Your task to perform on an android device: Do I have any events today? Image 0: 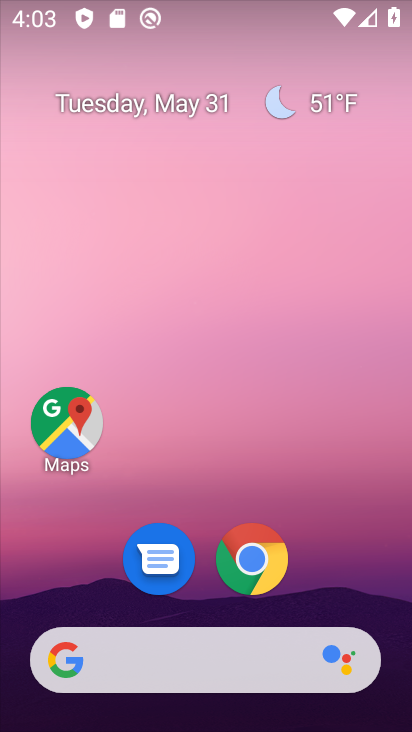
Step 0: drag from (331, 585) to (272, 44)
Your task to perform on an android device: Do I have any events today? Image 1: 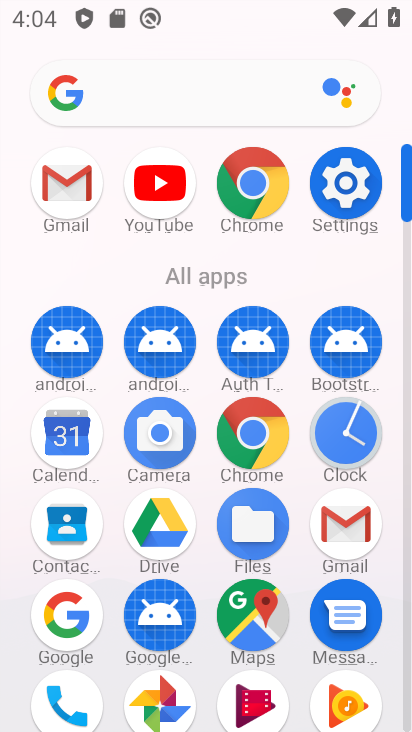
Step 1: click (56, 436)
Your task to perform on an android device: Do I have any events today? Image 2: 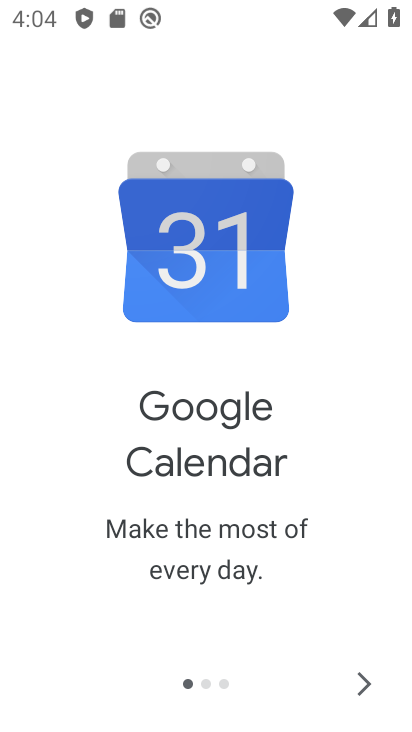
Step 2: click (354, 678)
Your task to perform on an android device: Do I have any events today? Image 3: 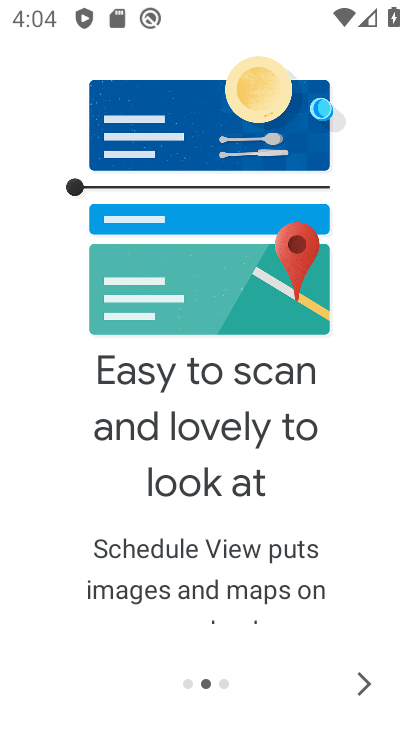
Step 3: click (355, 677)
Your task to perform on an android device: Do I have any events today? Image 4: 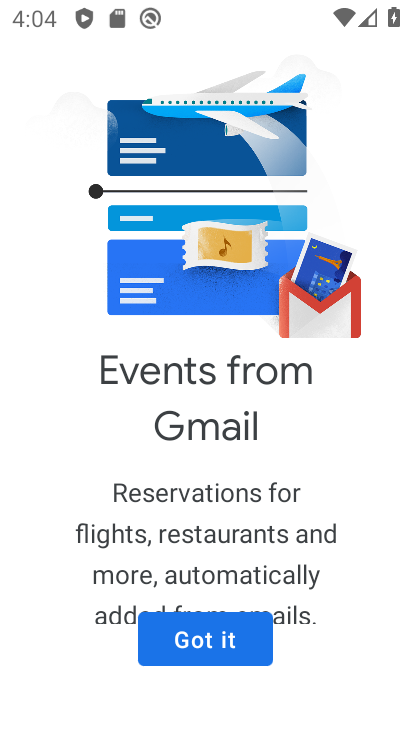
Step 4: click (185, 638)
Your task to perform on an android device: Do I have any events today? Image 5: 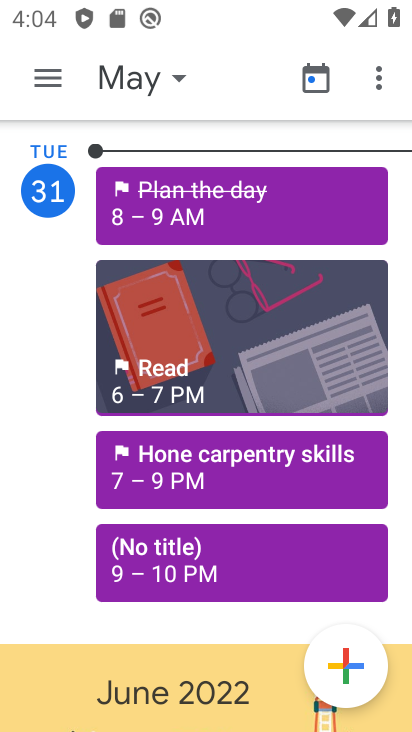
Step 5: click (138, 84)
Your task to perform on an android device: Do I have any events today? Image 6: 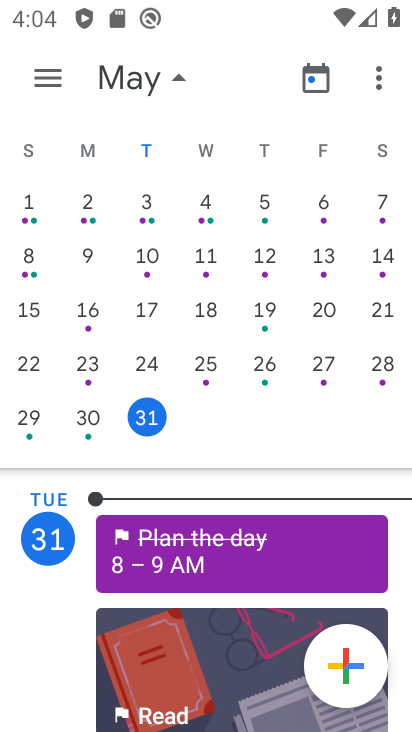
Step 6: click (155, 413)
Your task to perform on an android device: Do I have any events today? Image 7: 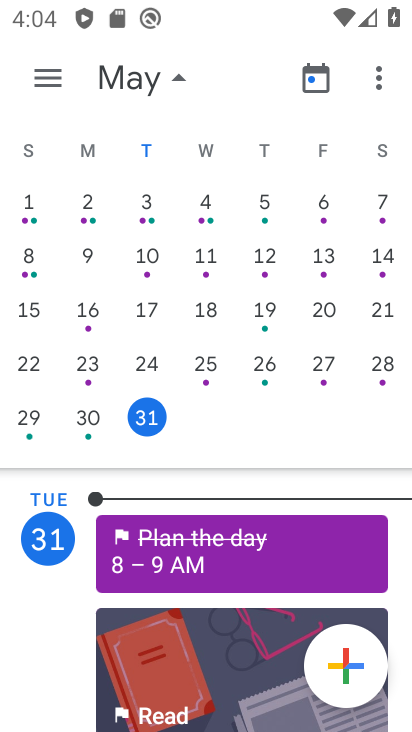
Step 7: task complete